Your task to perform on an android device: Go to privacy settings Image 0: 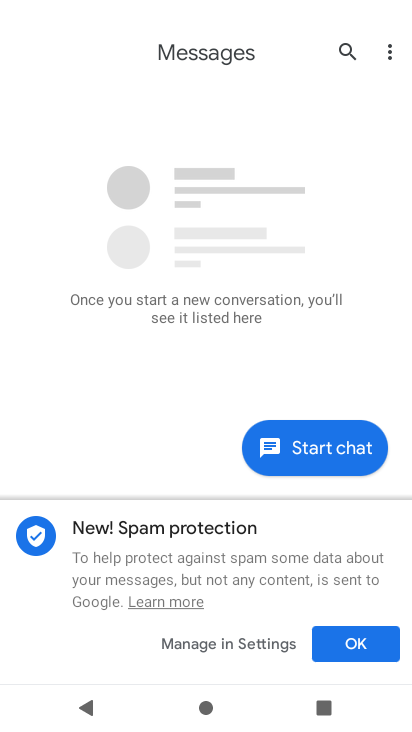
Step 0: press home button
Your task to perform on an android device: Go to privacy settings Image 1: 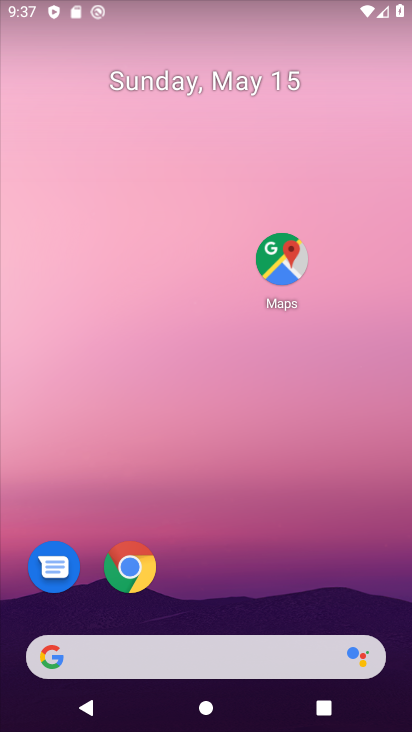
Step 1: drag from (208, 572) to (237, 6)
Your task to perform on an android device: Go to privacy settings Image 2: 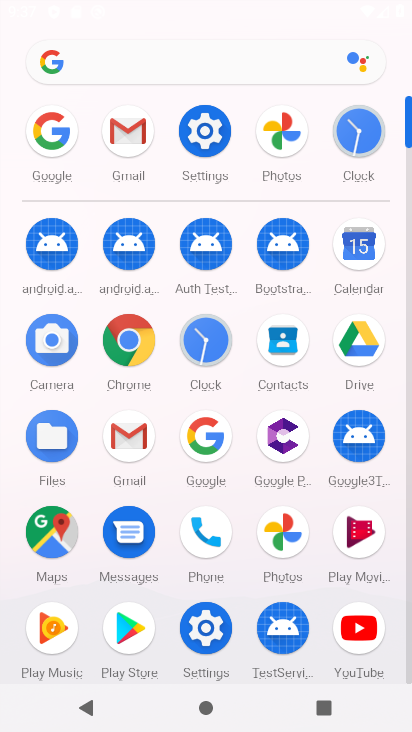
Step 2: click (206, 117)
Your task to perform on an android device: Go to privacy settings Image 3: 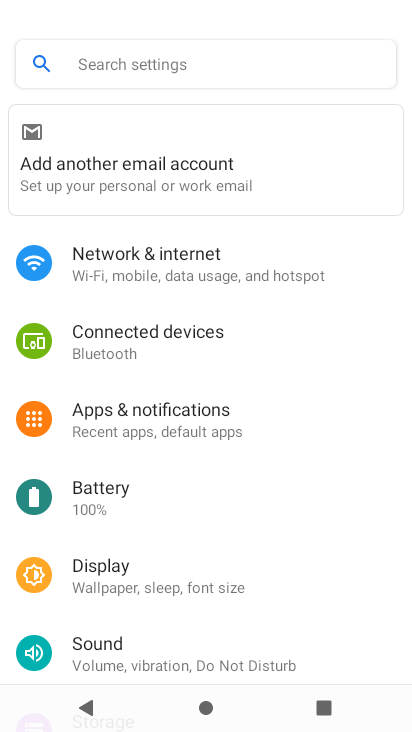
Step 3: drag from (229, 573) to (272, 82)
Your task to perform on an android device: Go to privacy settings Image 4: 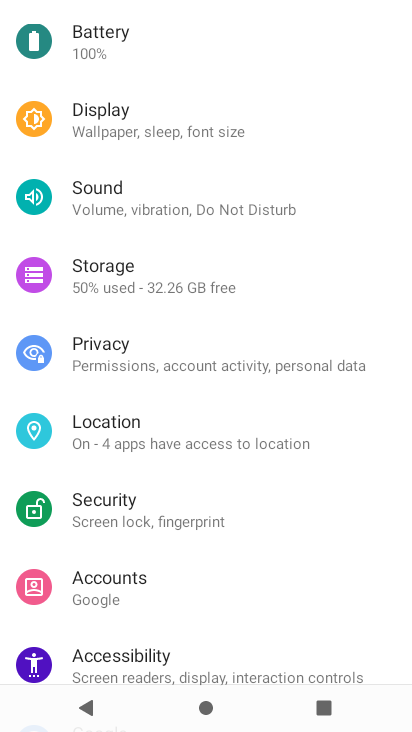
Step 4: click (140, 342)
Your task to perform on an android device: Go to privacy settings Image 5: 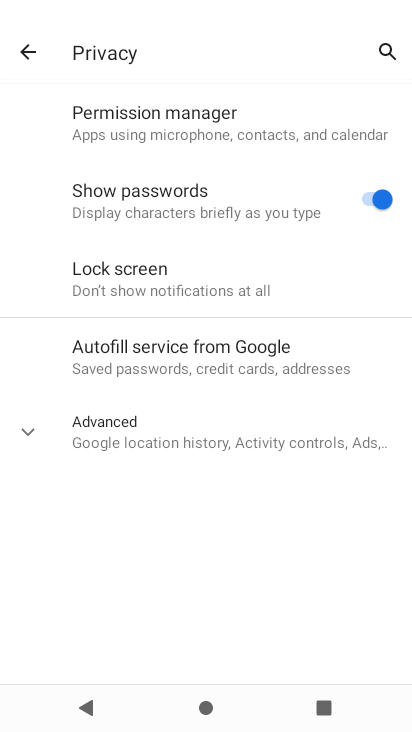
Step 5: task complete